Your task to perform on an android device: Open Maps and search for coffee Image 0: 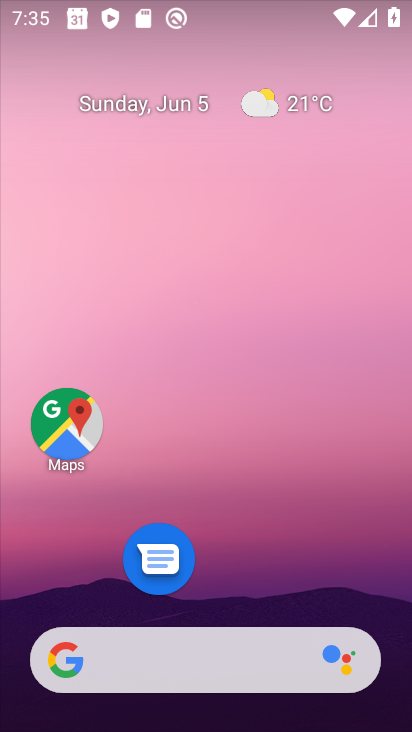
Step 0: drag from (240, 619) to (40, 3)
Your task to perform on an android device: Open Maps and search for coffee Image 1: 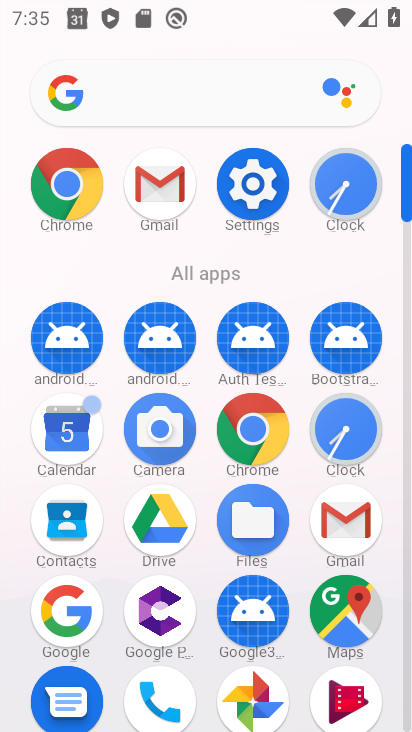
Step 1: click (336, 613)
Your task to perform on an android device: Open Maps and search for coffee Image 2: 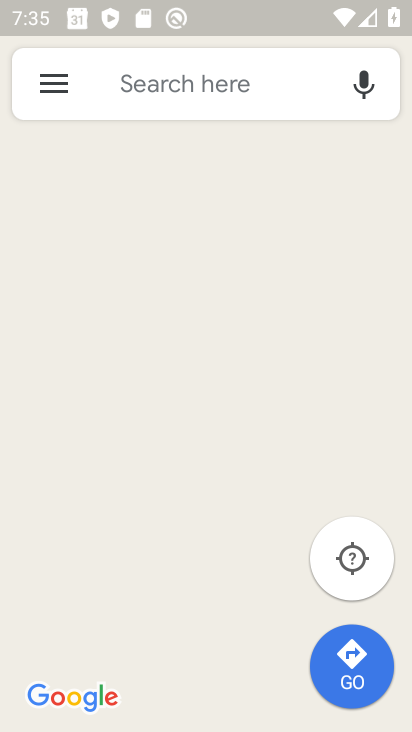
Step 2: click (175, 80)
Your task to perform on an android device: Open Maps and search for coffee Image 3: 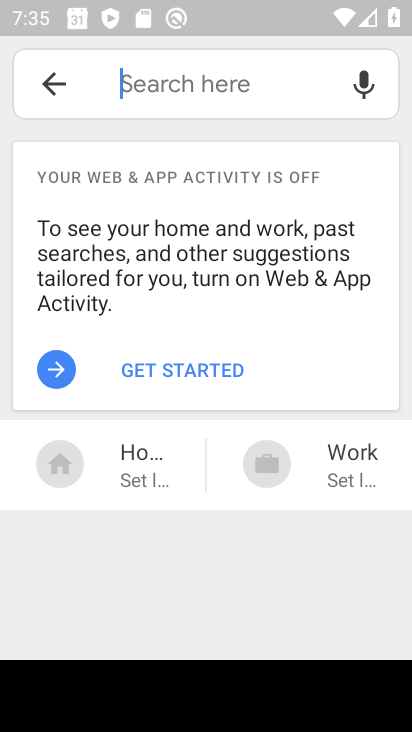
Step 3: click (184, 374)
Your task to perform on an android device: Open Maps and search for coffee Image 4: 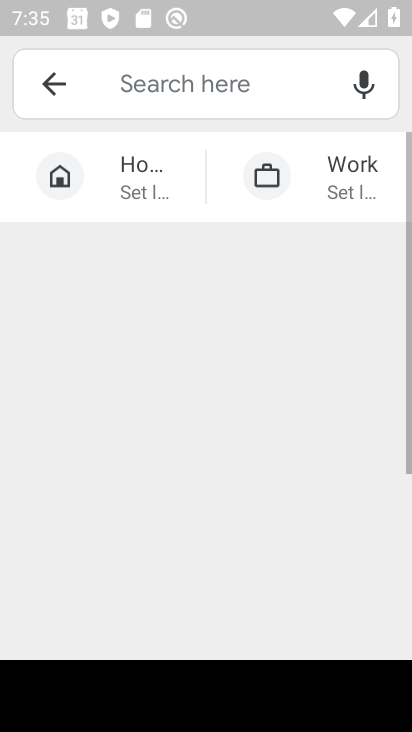
Step 4: click (185, 91)
Your task to perform on an android device: Open Maps and search for coffee Image 5: 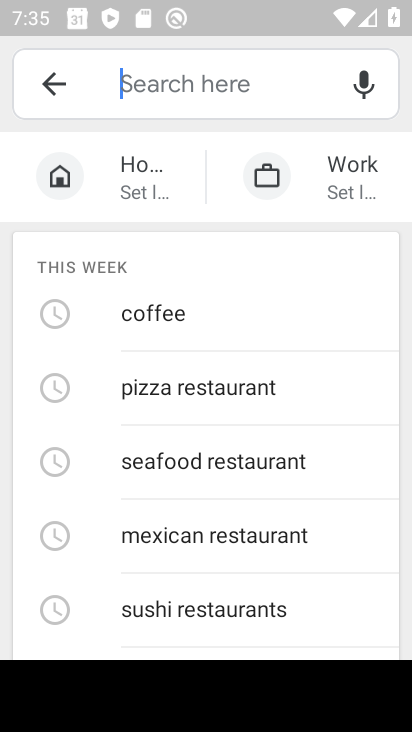
Step 5: click (178, 315)
Your task to perform on an android device: Open Maps and search for coffee Image 6: 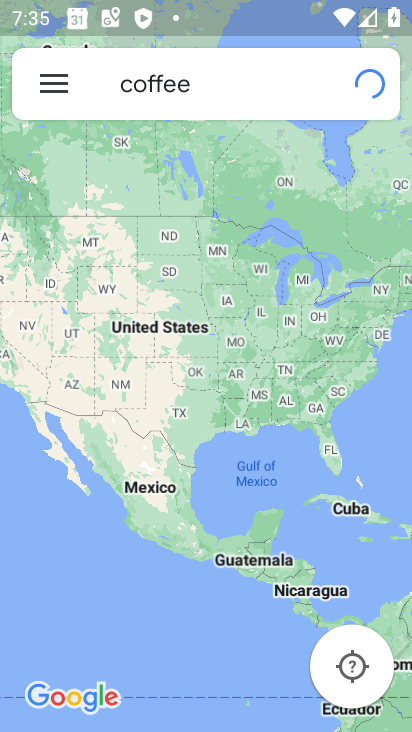
Step 6: task complete